Your task to perform on an android device: toggle notification dots Image 0: 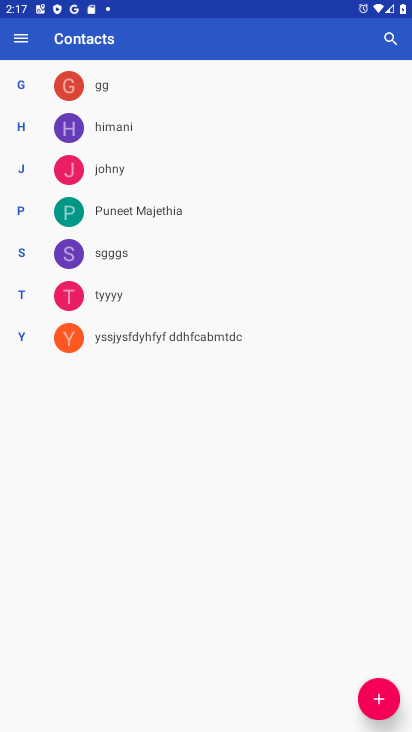
Step 0: press home button
Your task to perform on an android device: toggle notification dots Image 1: 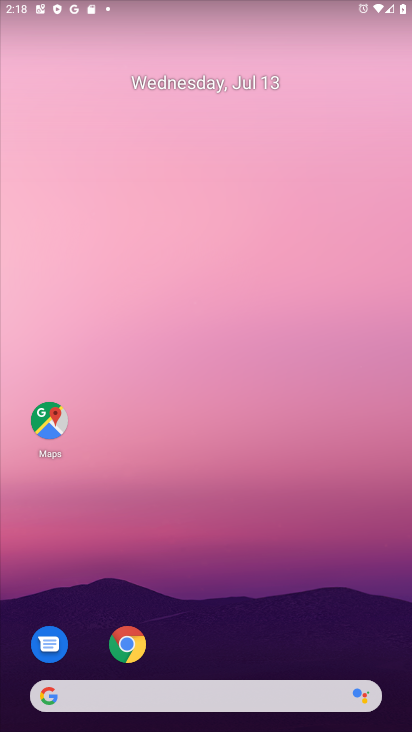
Step 1: drag from (205, 672) to (127, 22)
Your task to perform on an android device: toggle notification dots Image 2: 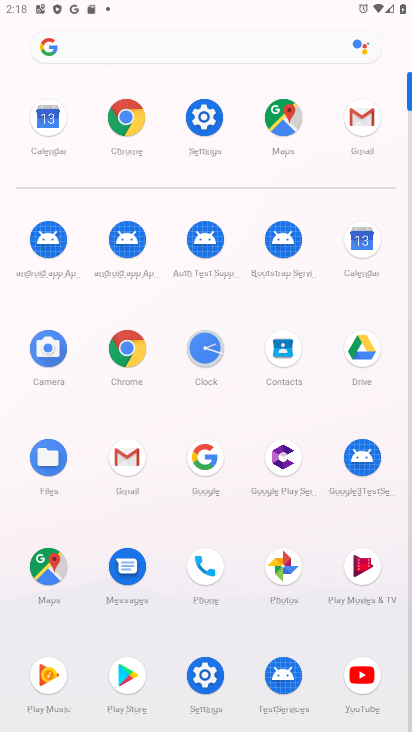
Step 2: click (189, 131)
Your task to perform on an android device: toggle notification dots Image 3: 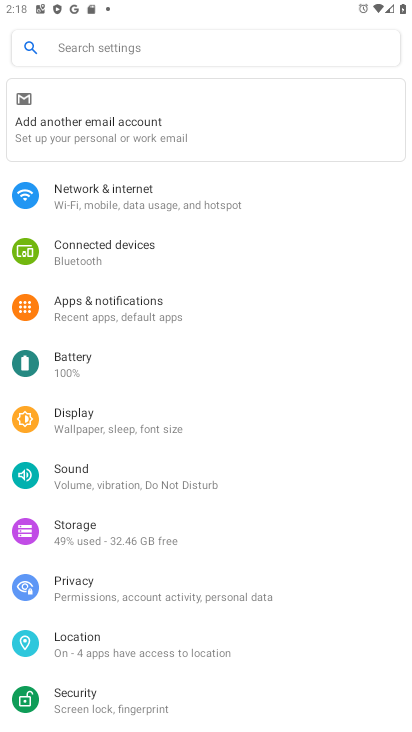
Step 3: click (104, 311)
Your task to perform on an android device: toggle notification dots Image 4: 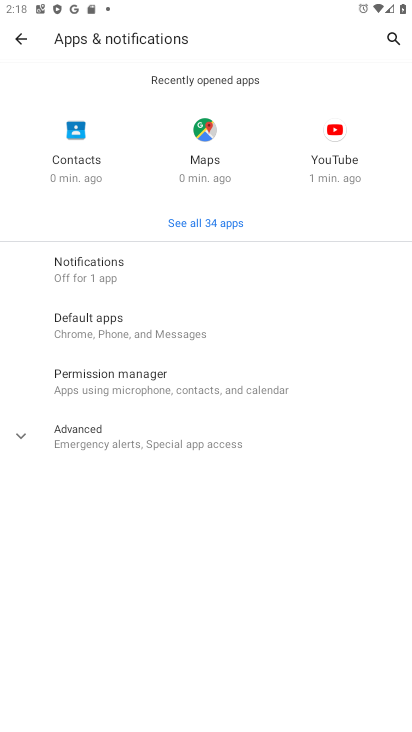
Step 4: click (109, 434)
Your task to perform on an android device: toggle notification dots Image 5: 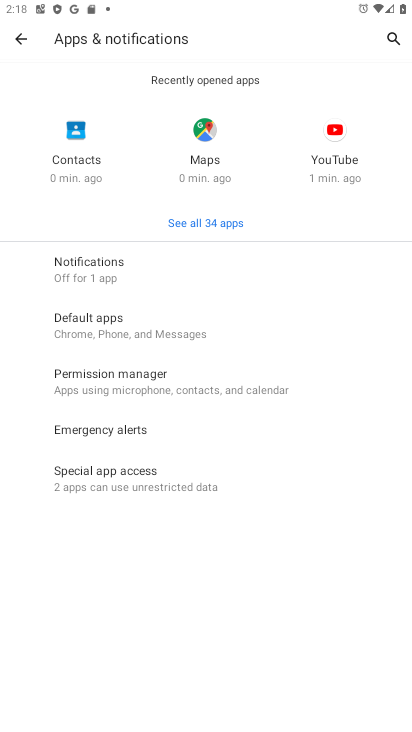
Step 5: click (103, 267)
Your task to perform on an android device: toggle notification dots Image 6: 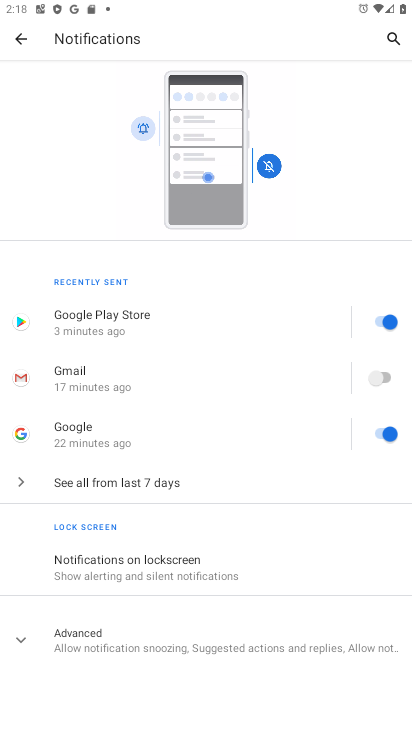
Step 6: click (119, 632)
Your task to perform on an android device: toggle notification dots Image 7: 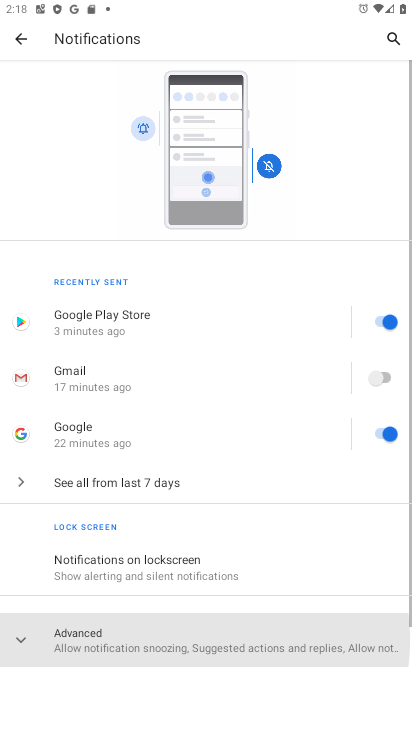
Step 7: drag from (119, 632) to (71, 208)
Your task to perform on an android device: toggle notification dots Image 8: 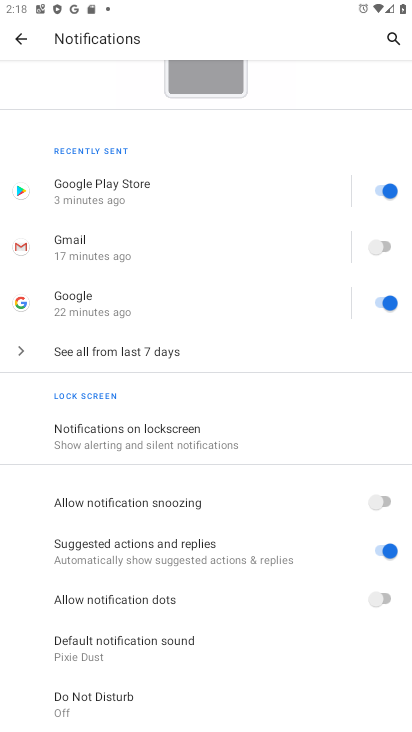
Step 8: click (387, 593)
Your task to perform on an android device: toggle notification dots Image 9: 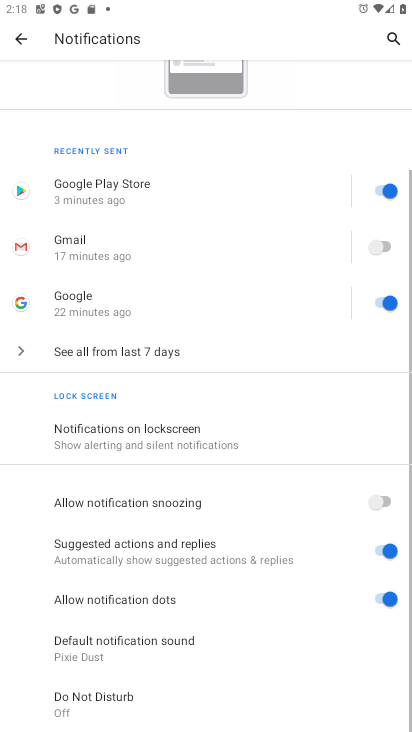
Step 9: task complete